Your task to perform on an android device: Open Google Maps and go to "Timeline" Image 0: 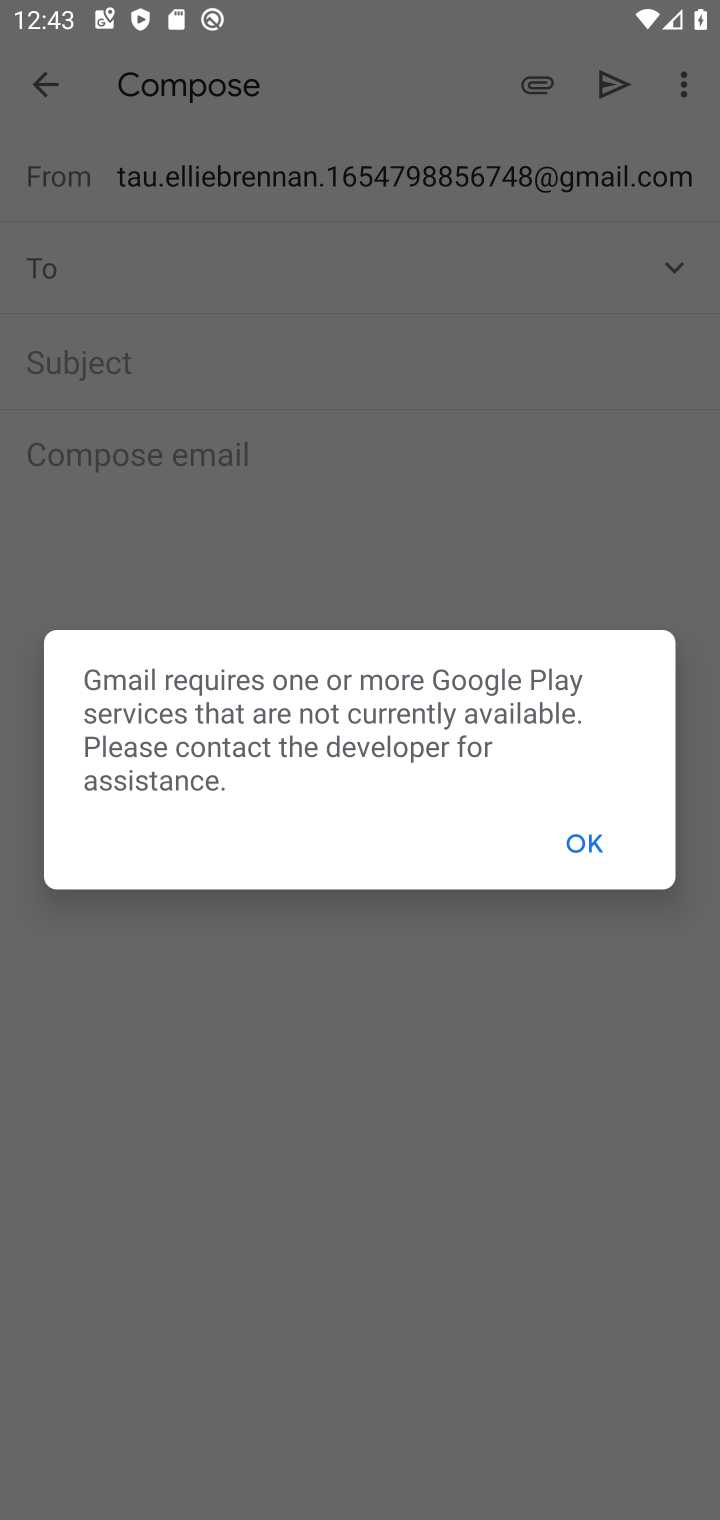
Step 0: click (569, 848)
Your task to perform on an android device: Open Google Maps and go to "Timeline" Image 1: 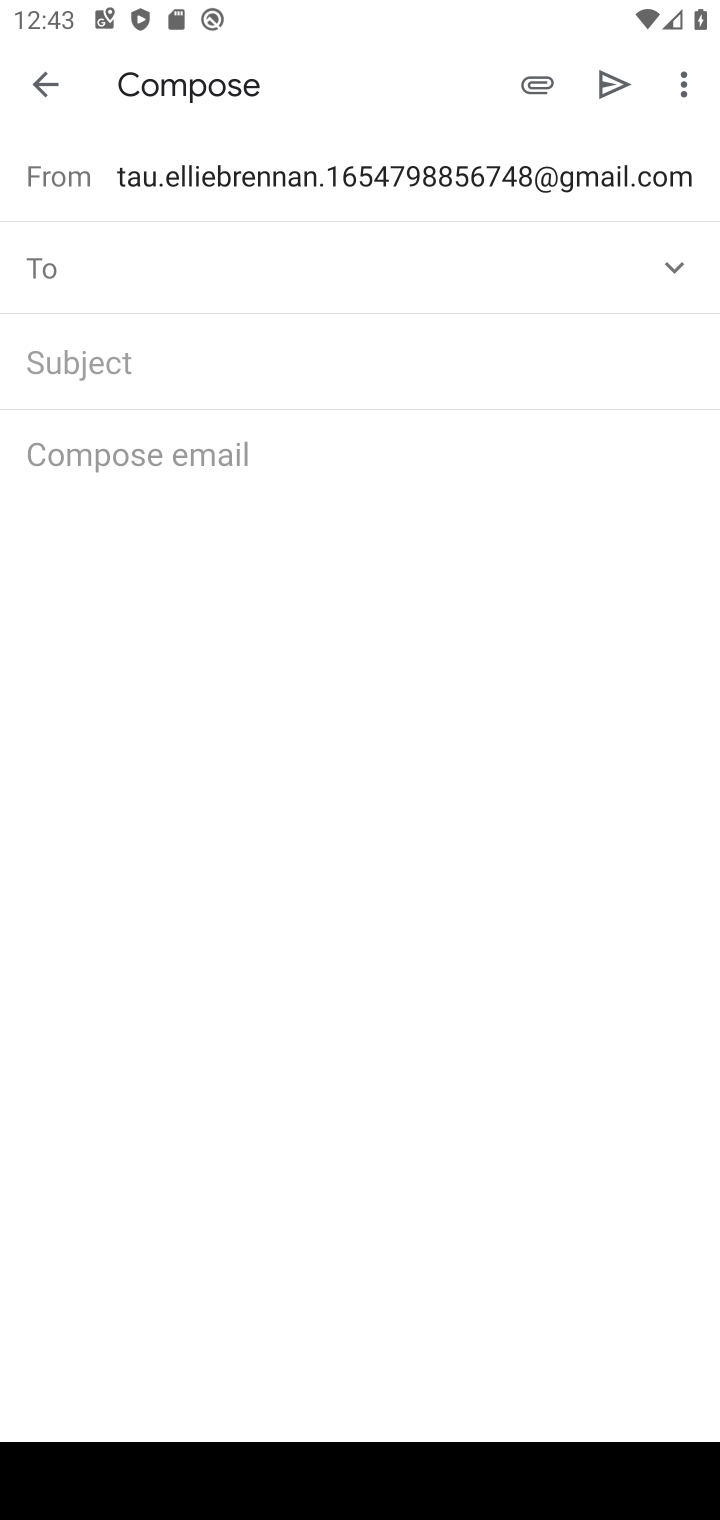
Step 1: press back button
Your task to perform on an android device: Open Google Maps and go to "Timeline" Image 2: 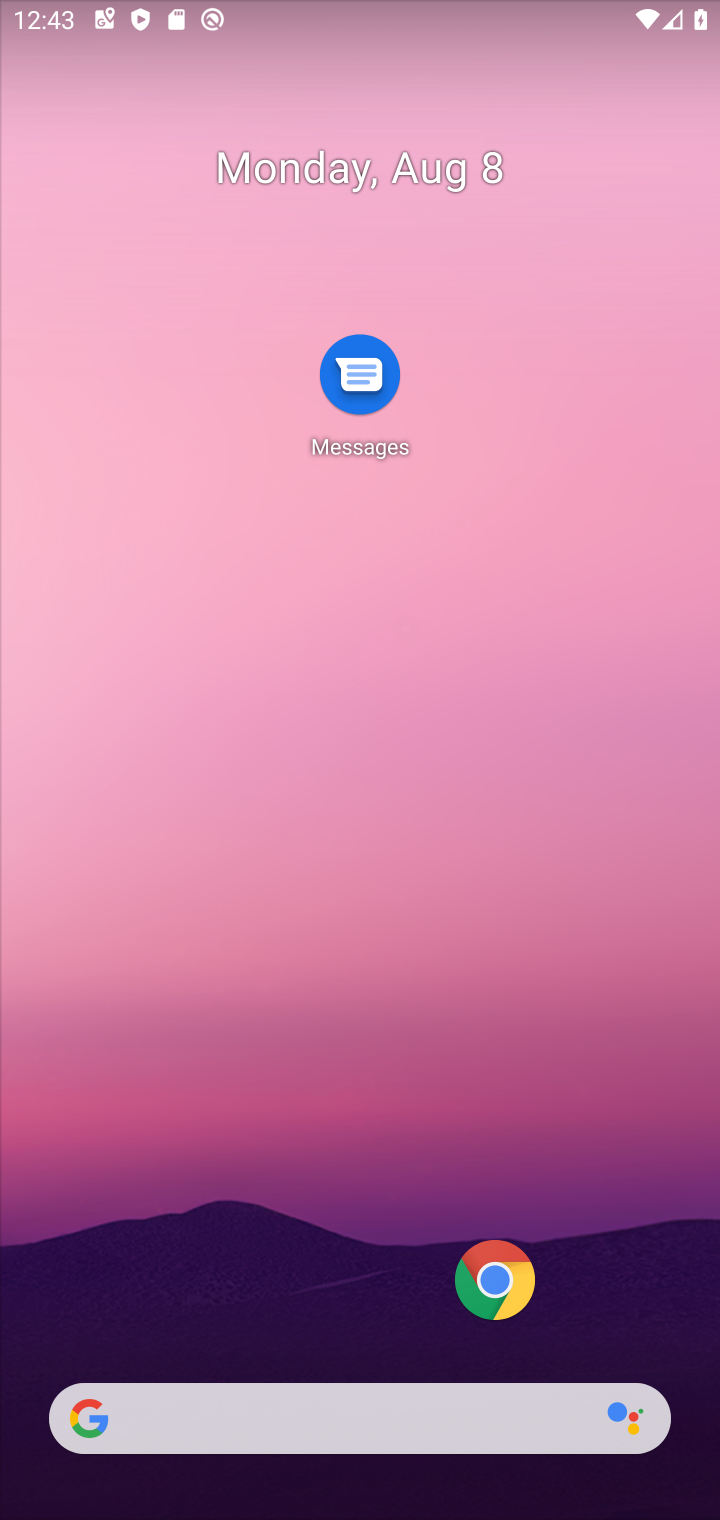
Step 2: drag from (215, 1346) to (405, 14)
Your task to perform on an android device: Open Google Maps and go to "Timeline" Image 3: 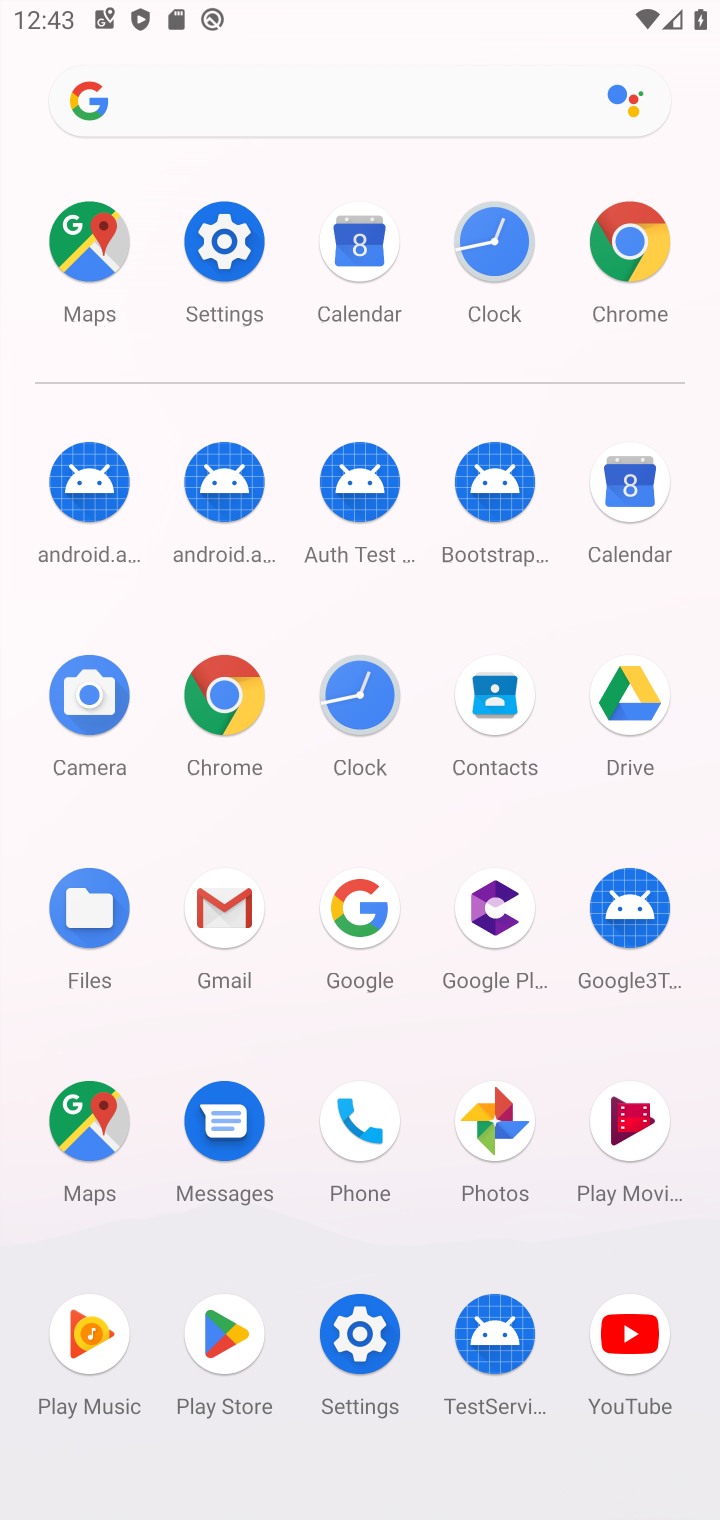
Step 3: click (98, 239)
Your task to perform on an android device: Open Google Maps and go to "Timeline" Image 4: 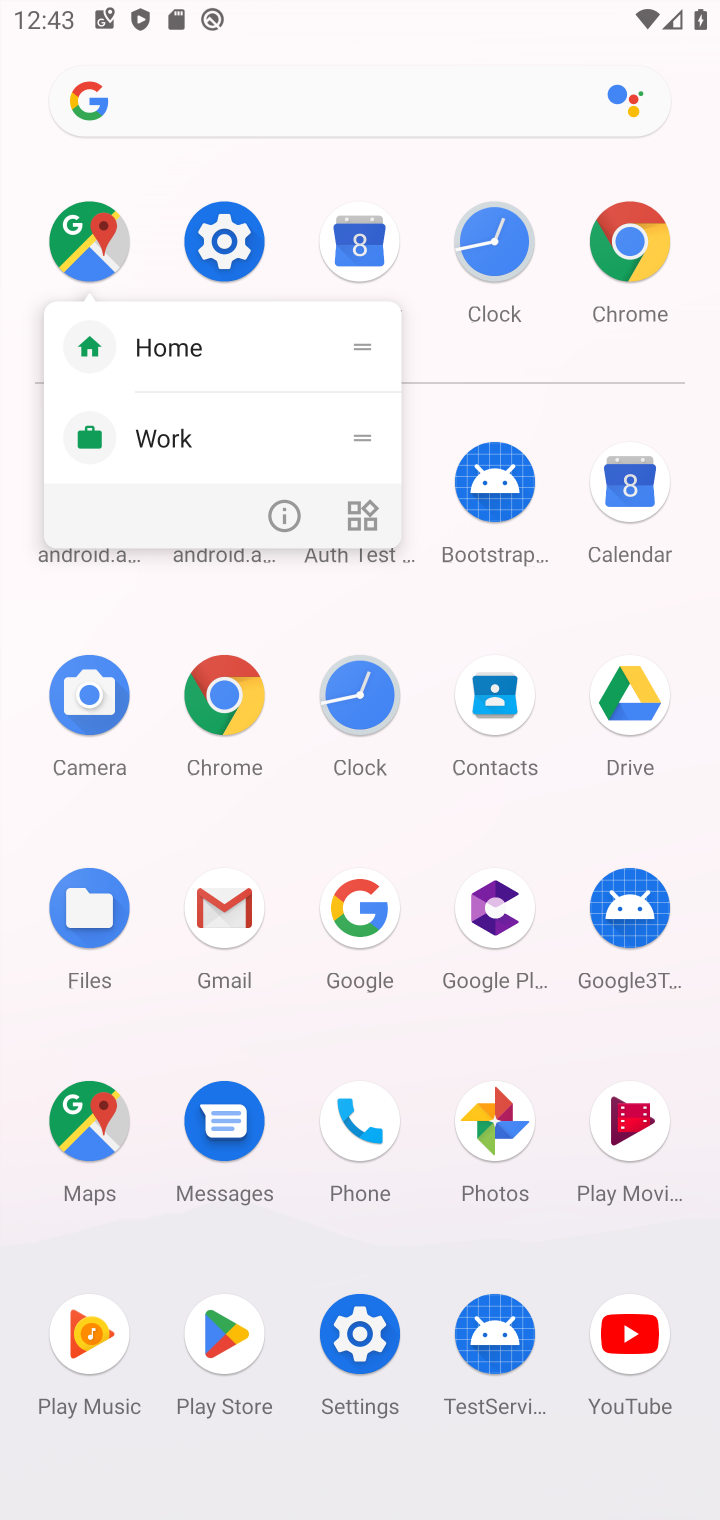
Step 4: click (88, 229)
Your task to perform on an android device: Open Google Maps and go to "Timeline" Image 5: 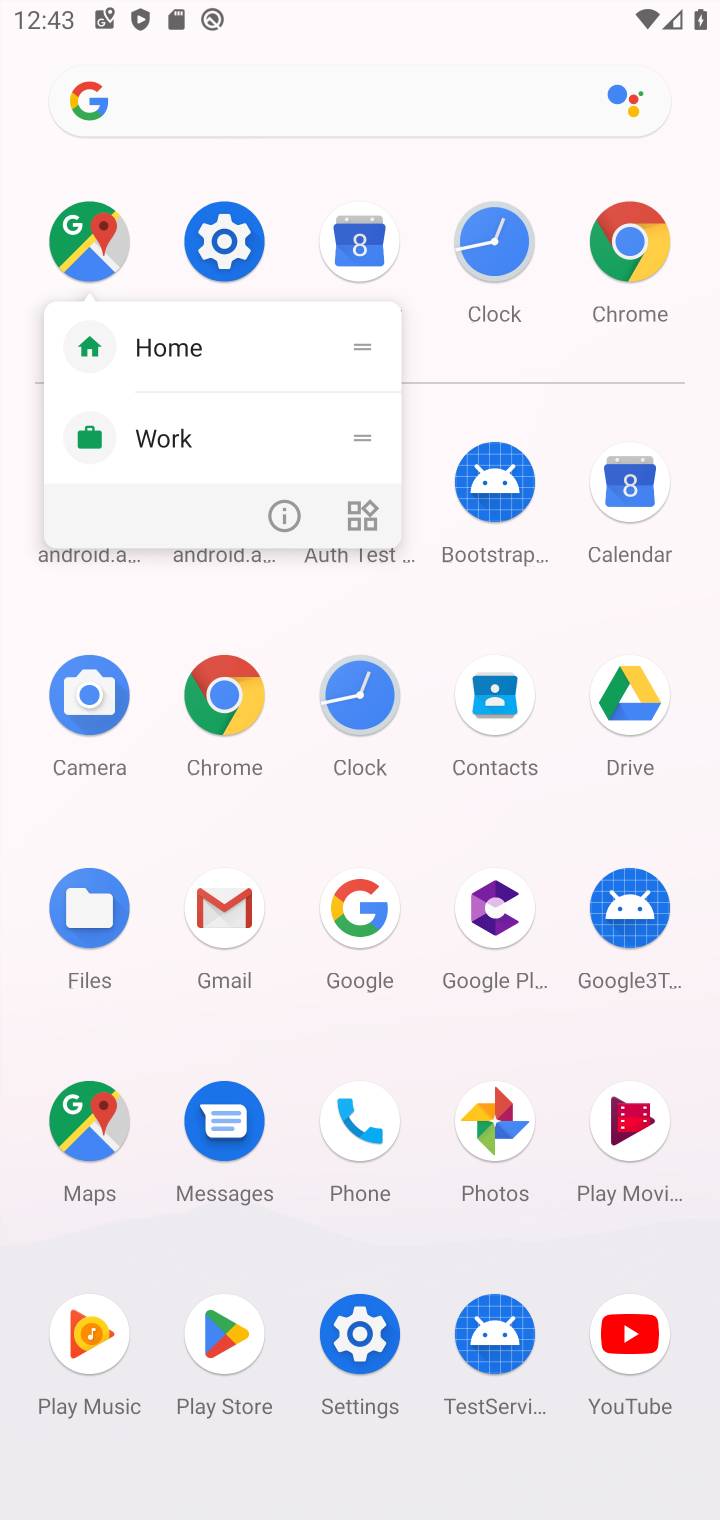
Step 5: click (94, 238)
Your task to perform on an android device: Open Google Maps and go to "Timeline" Image 6: 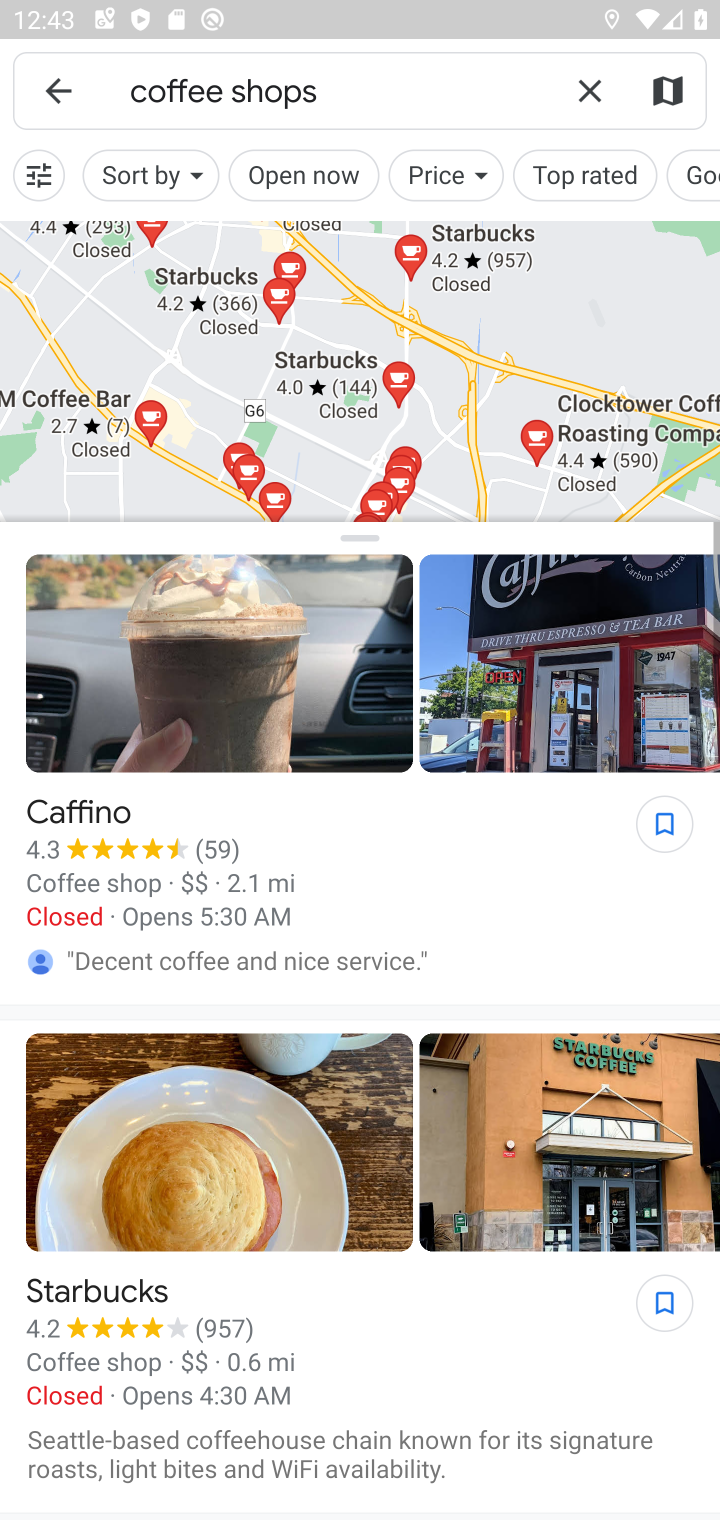
Step 6: click (54, 99)
Your task to perform on an android device: Open Google Maps and go to "Timeline" Image 7: 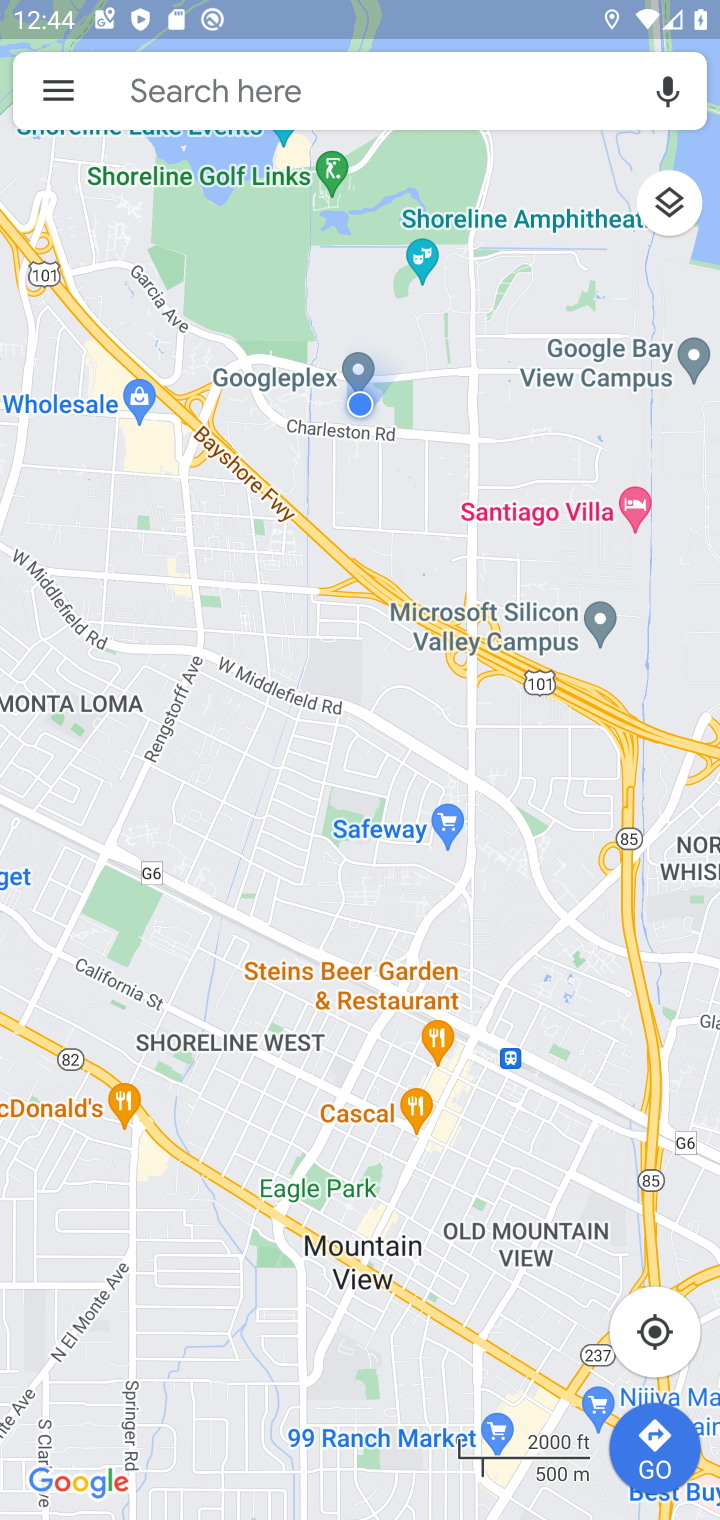
Step 7: click (56, 93)
Your task to perform on an android device: Open Google Maps and go to "Timeline" Image 8: 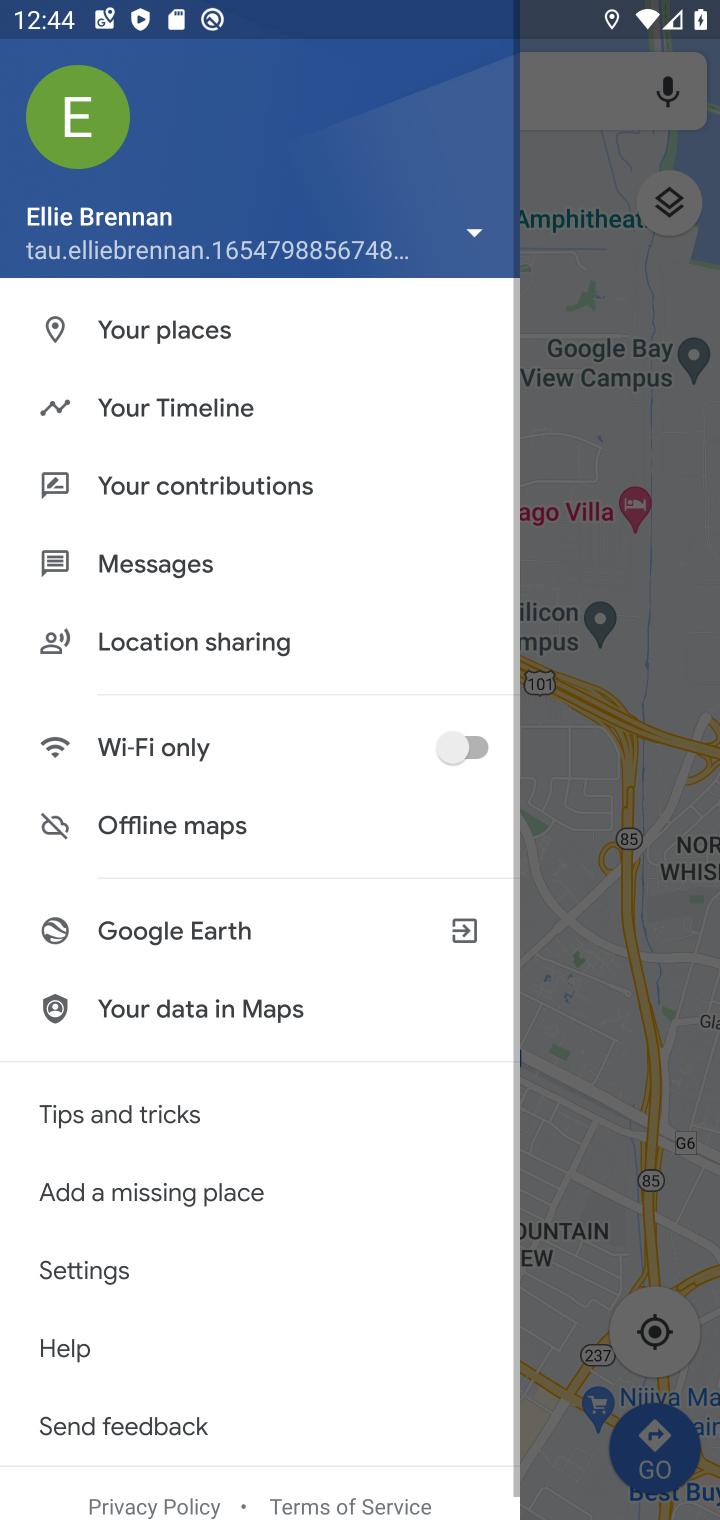
Step 8: click (281, 398)
Your task to perform on an android device: Open Google Maps and go to "Timeline" Image 9: 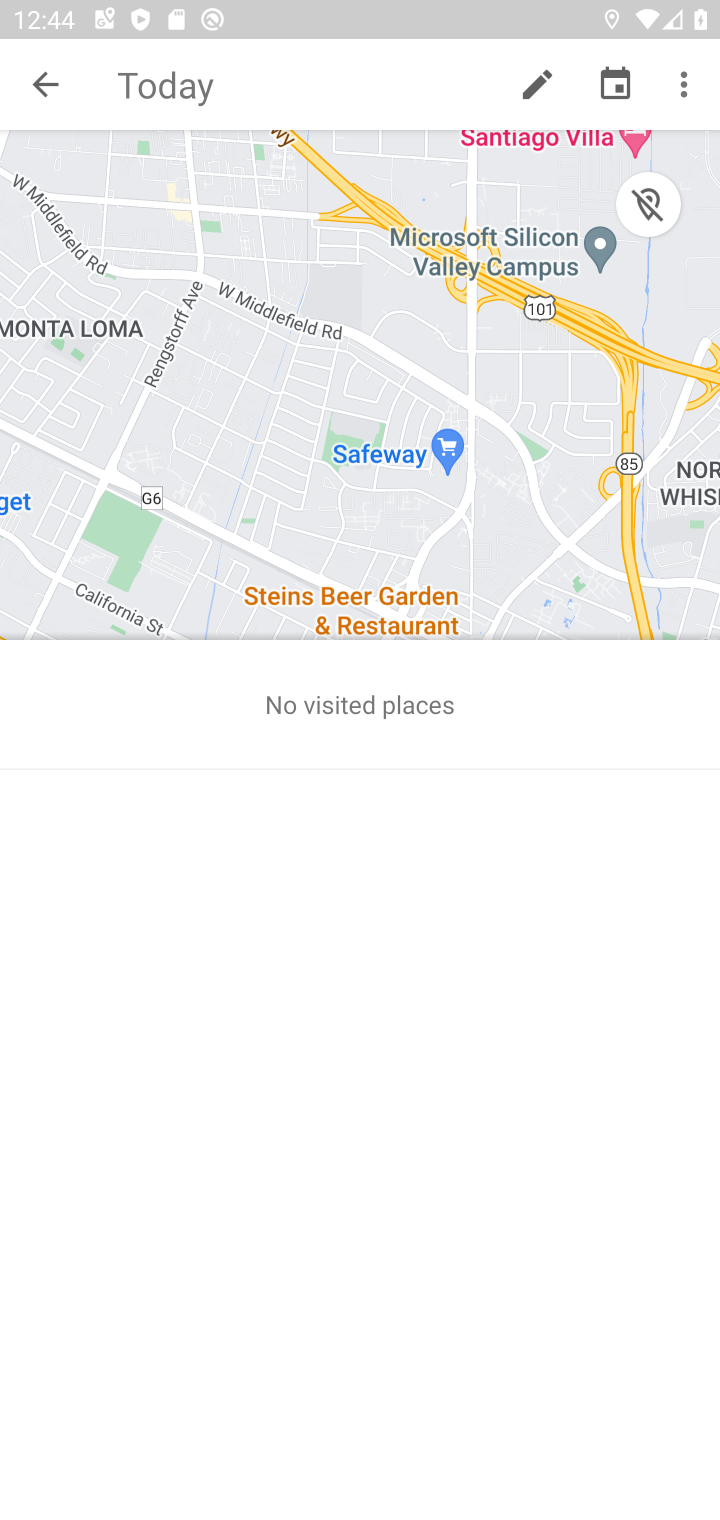
Step 9: task complete